Your task to perform on an android device: check data usage Image 0: 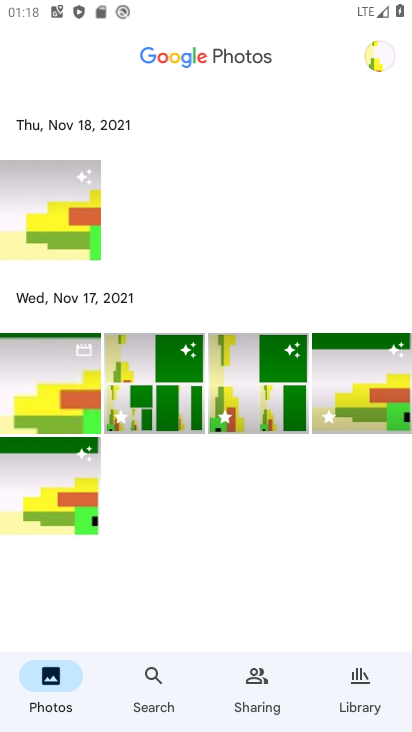
Step 0: press home button
Your task to perform on an android device: check data usage Image 1: 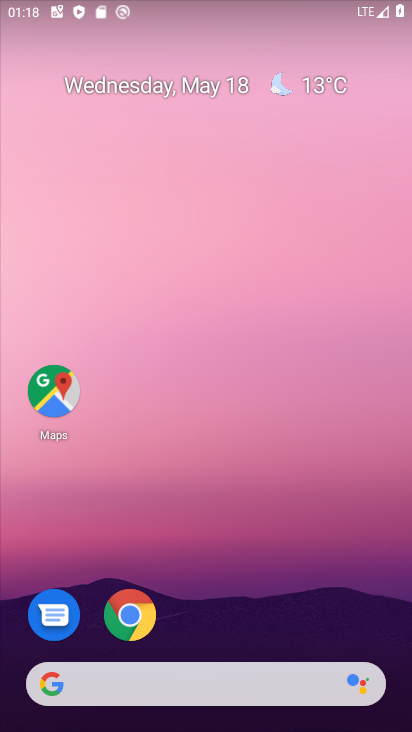
Step 1: drag from (143, 686) to (249, 111)
Your task to perform on an android device: check data usage Image 2: 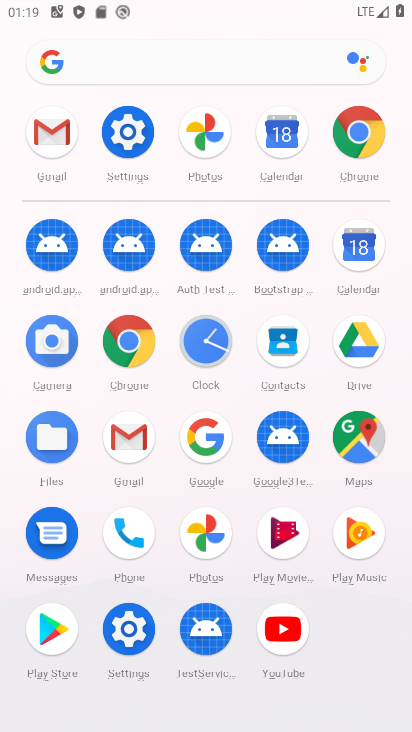
Step 2: click (130, 135)
Your task to perform on an android device: check data usage Image 3: 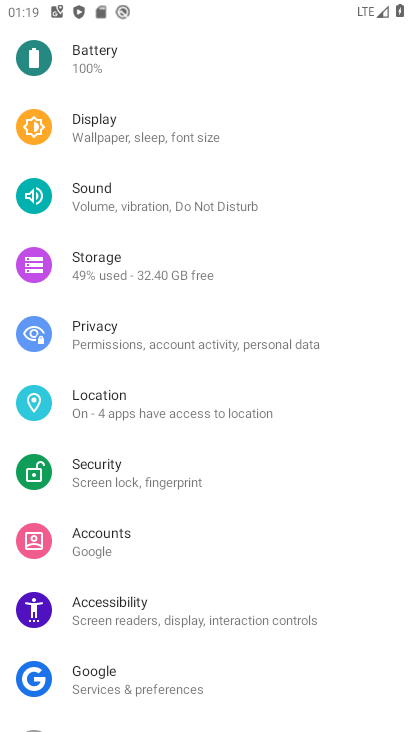
Step 3: drag from (325, 93) to (232, 593)
Your task to perform on an android device: check data usage Image 4: 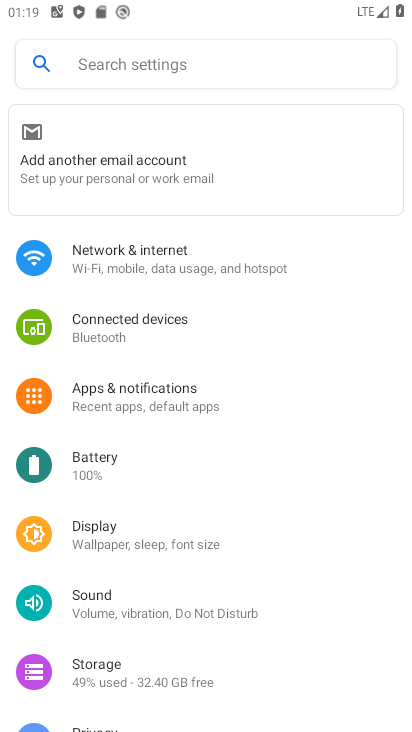
Step 4: click (142, 259)
Your task to perform on an android device: check data usage Image 5: 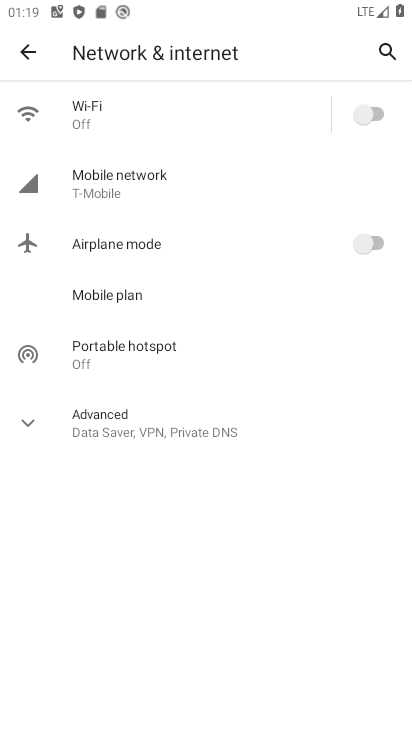
Step 5: click (108, 111)
Your task to perform on an android device: check data usage Image 6: 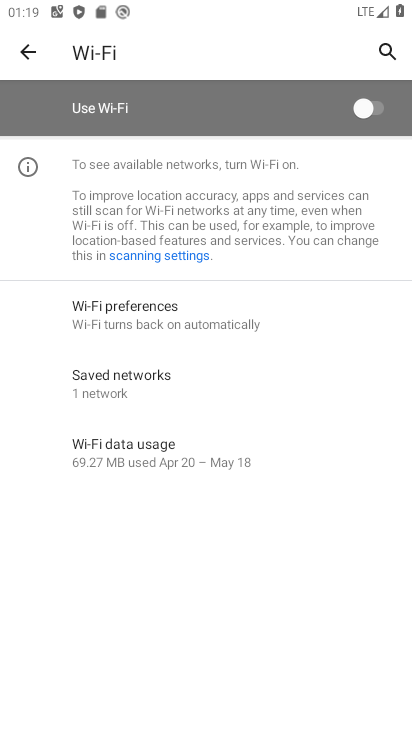
Step 6: click (155, 454)
Your task to perform on an android device: check data usage Image 7: 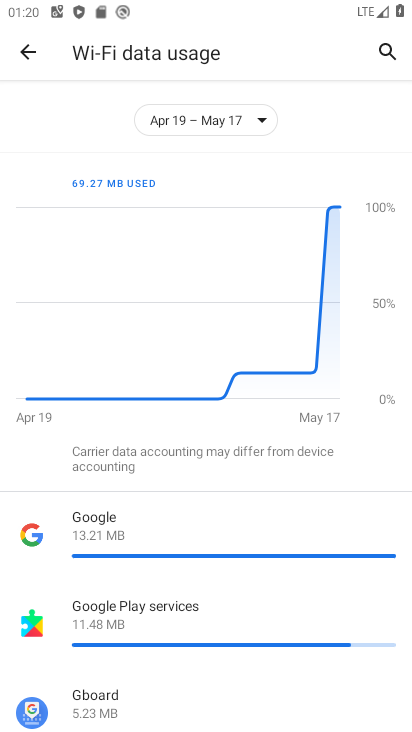
Step 7: task complete